Your task to perform on an android device: see sites visited before in the chrome app Image 0: 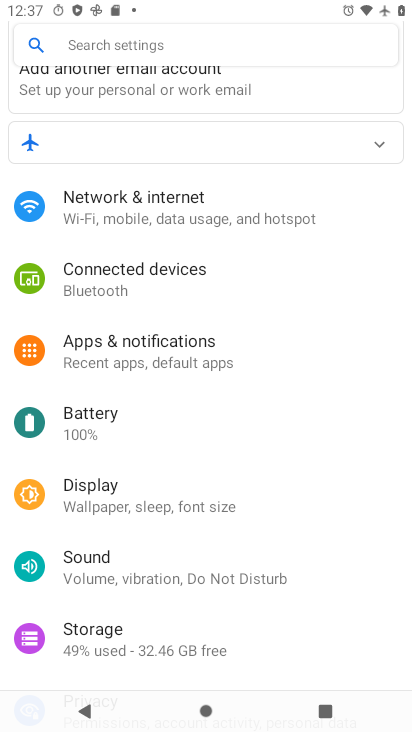
Step 0: press home button
Your task to perform on an android device: see sites visited before in the chrome app Image 1: 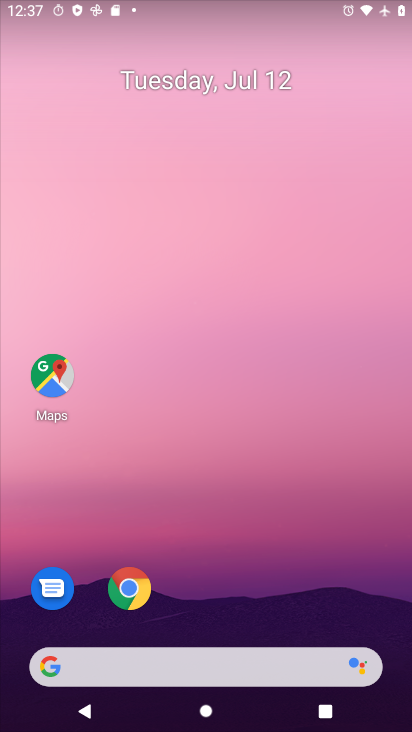
Step 1: click (118, 593)
Your task to perform on an android device: see sites visited before in the chrome app Image 2: 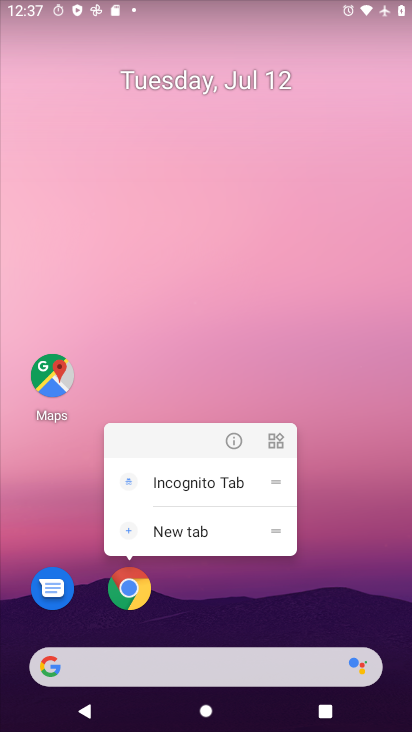
Step 2: click (142, 588)
Your task to perform on an android device: see sites visited before in the chrome app Image 3: 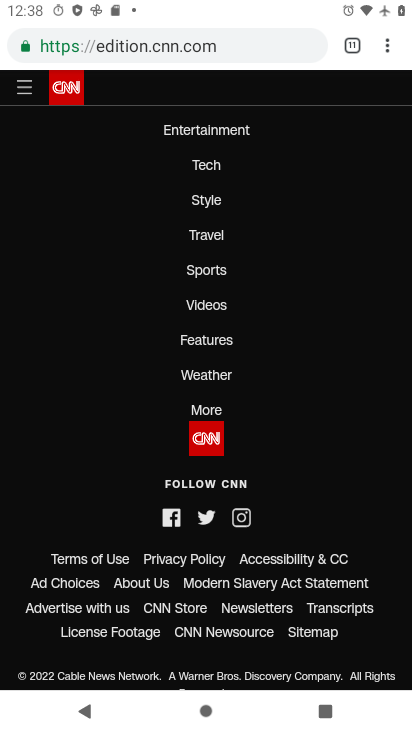
Step 3: task complete